Your task to perform on an android device: Open calendar and show me the first week of next month Image 0: 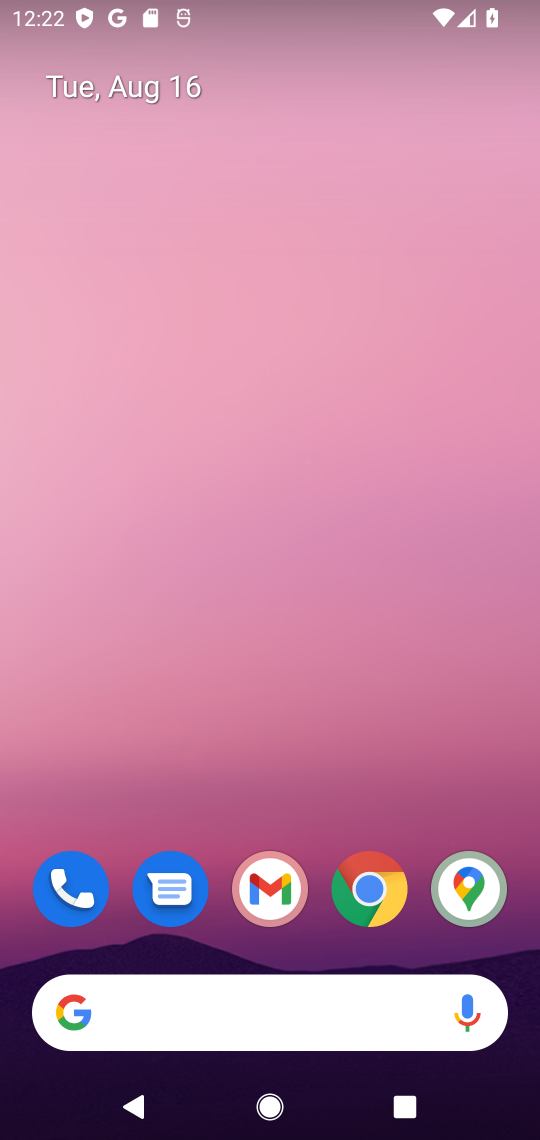
Step 0: drag from (252, 585) to (505, 18)
Your task to perform on an android device: Open calendar and show me the first week of next month Image 1: 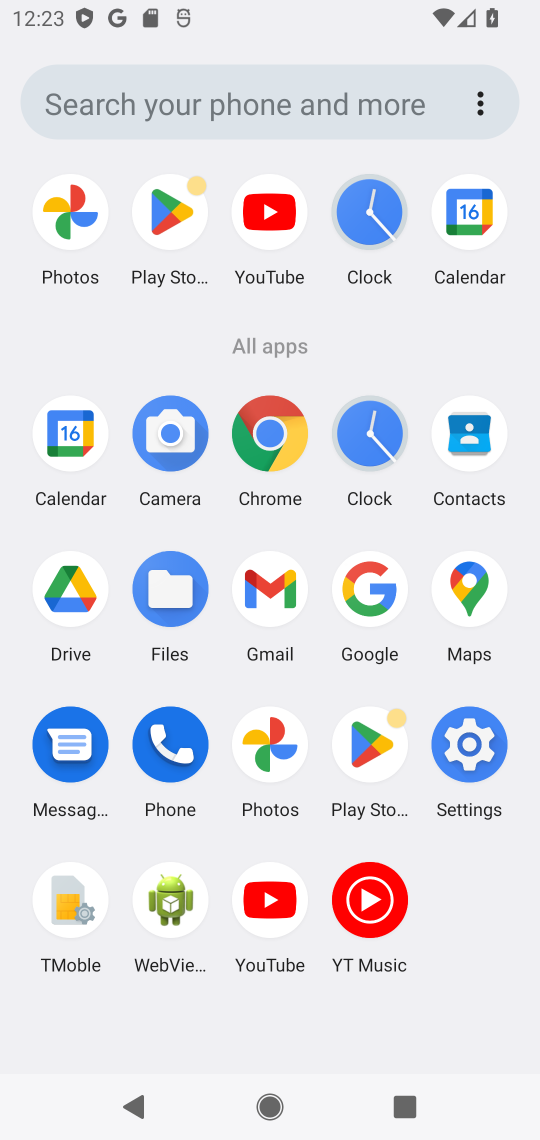
Step 1: click (74, 464)
Your task to perform on an android device: Open calendar and show me the first week of next month Image 2: 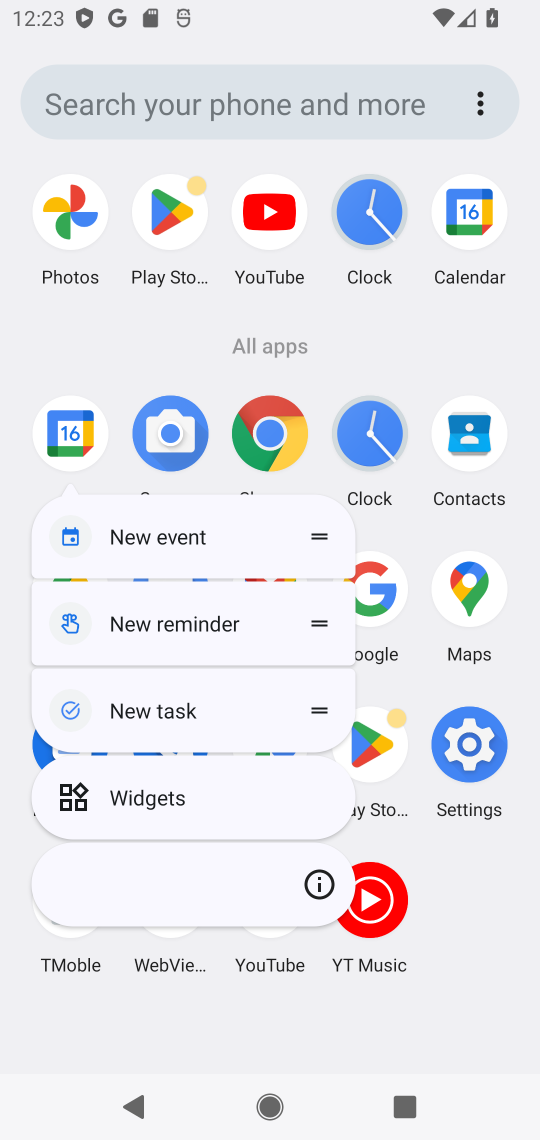
Step 2: click (67, 453)
Your task to perform on an android device: Open calendar and show me the first week of next month Image 3: 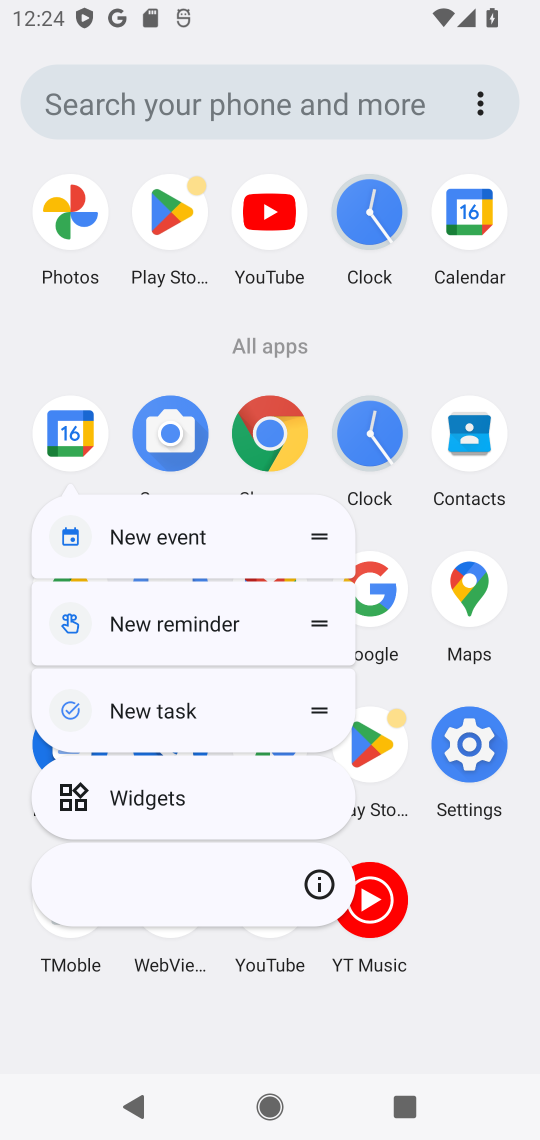
Step 3: click (60, 412)
Your task to perform on an android device: Open calendar and show me the first week of next month Image 4: 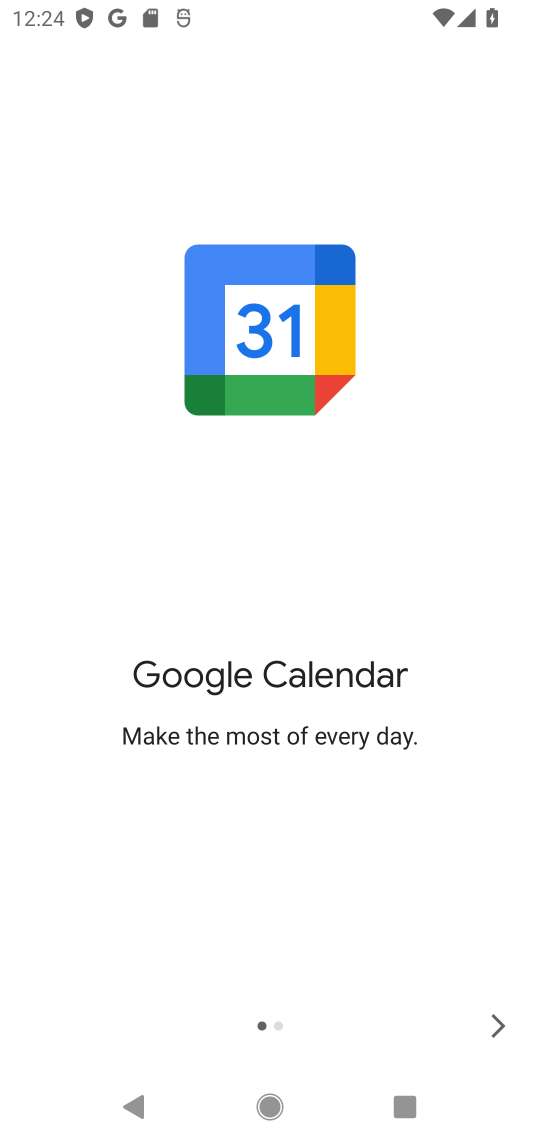
Step 4: click (499, 1015)
Your task to perform on an android device: Open calendar and show me the first week of next month Image 5: 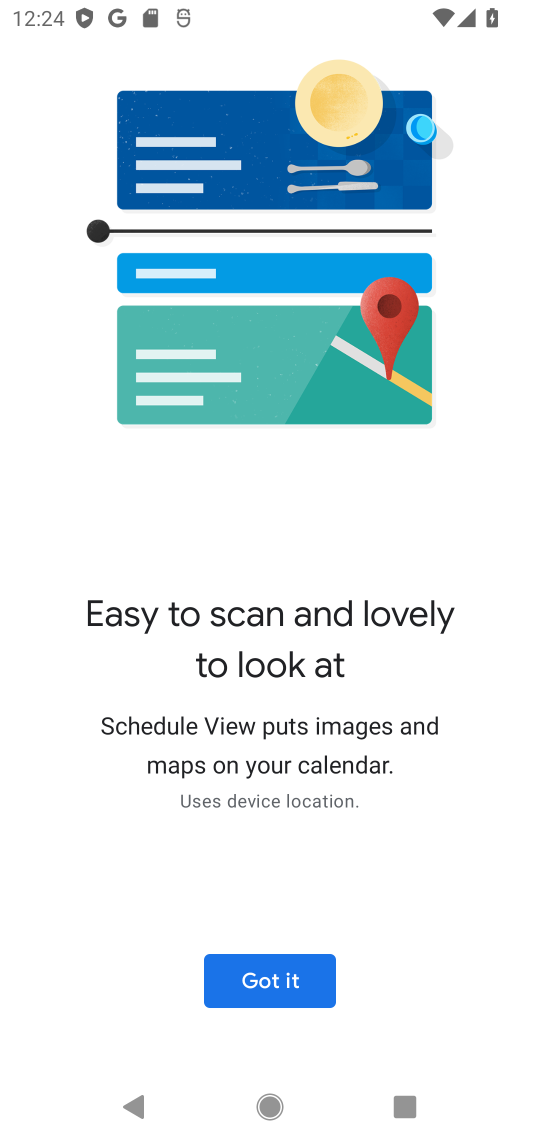
Step 5: click (292, 970)
Your task to perform on an android device: Open calendar and show me the first week of next month Image 6: 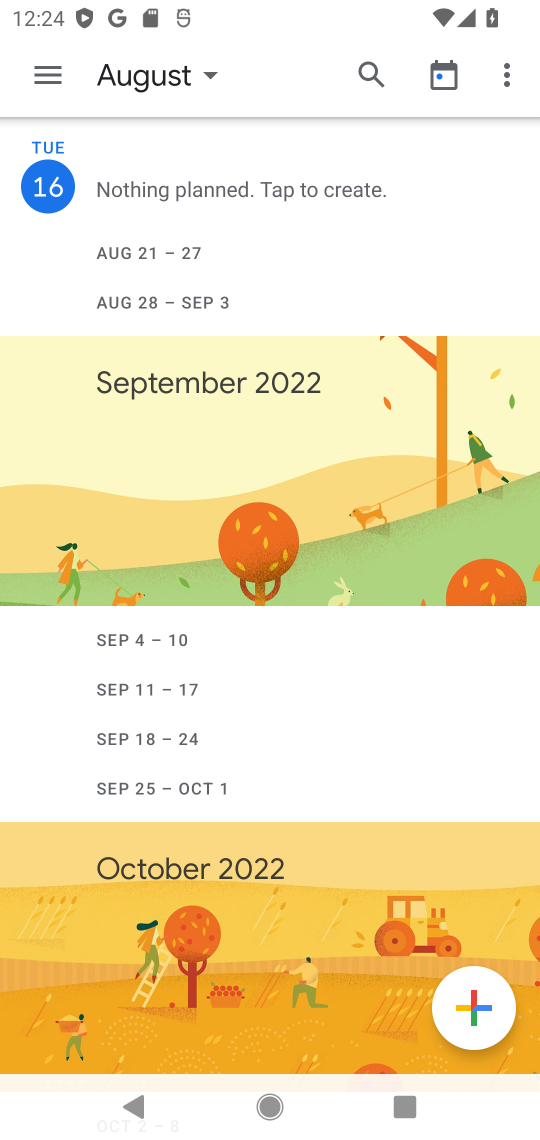
Step 6: click (151, 78)
Your task to perform on an android device: Open calendar and show me the first week of next month Image 7: 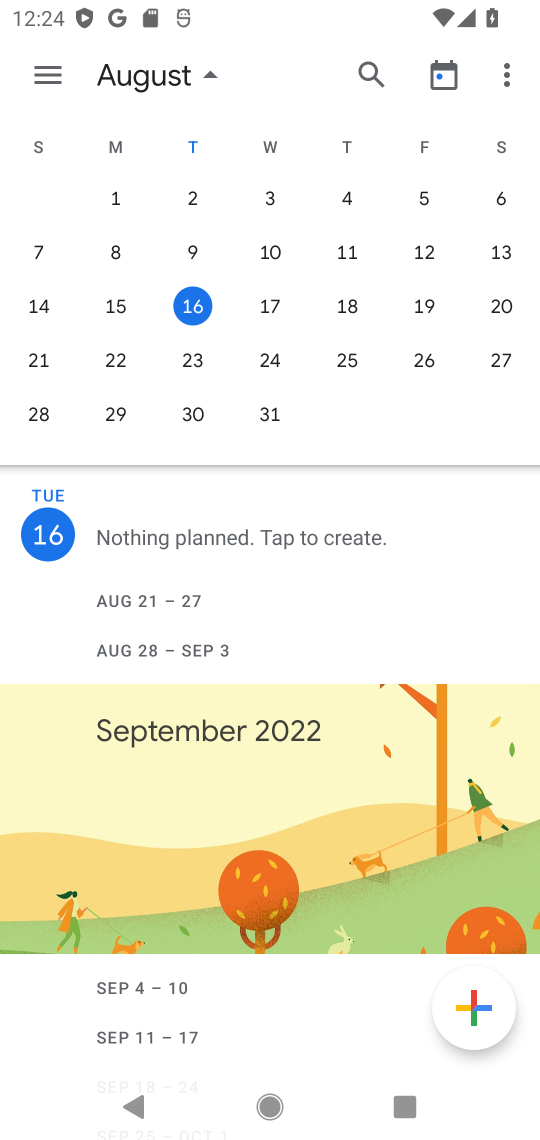
Step 7: drag from (418, 348) to (1, 535)
Your task to perform on an android device: Open calendar and show me the first week of next month Image 8: 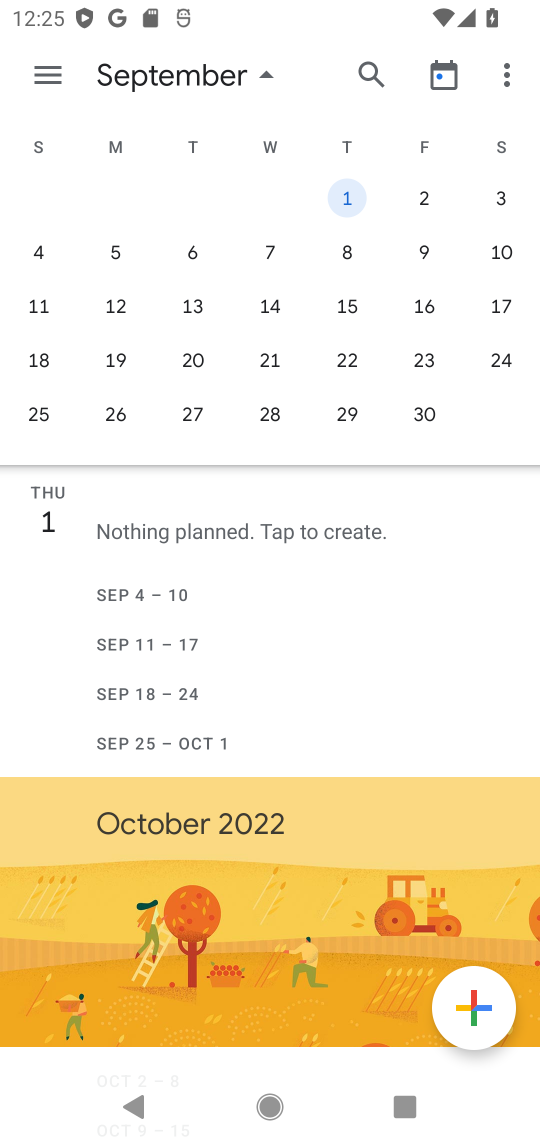
Step 8: click (252, 246)
Your task to perform on an android device: Open calendar and show me the first week of next month Image 9: 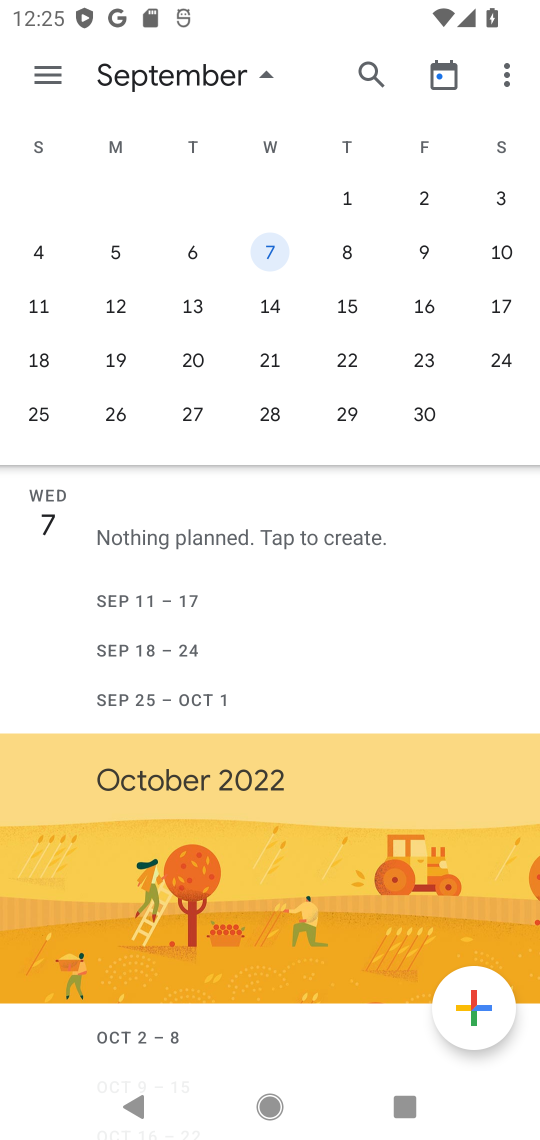
Step 9: task complete